Your task to perform on an android device: change your default location settings in chrome Image 0: 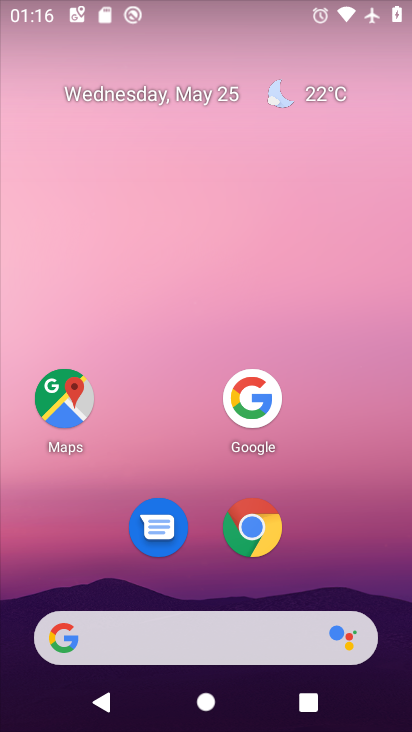
Step 0: press home button
Your task to perform on an android device: change your default location settings in chrome Image 1: 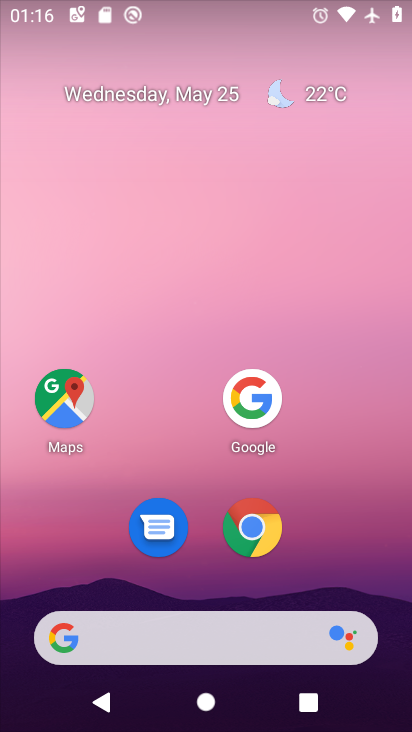
Step 1: click (249, 539)
Your task to perform on an android device: change your default location settings in chrome Image 2: 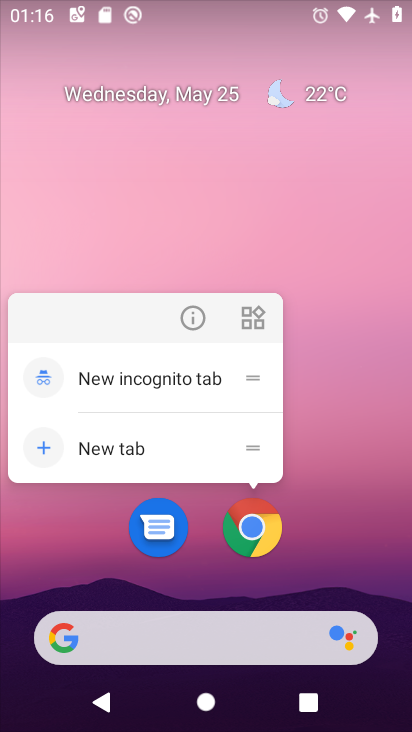
Step 2: click (260, 544)
Your task to perform on an android device: change your default location settings in chrome Image 3: 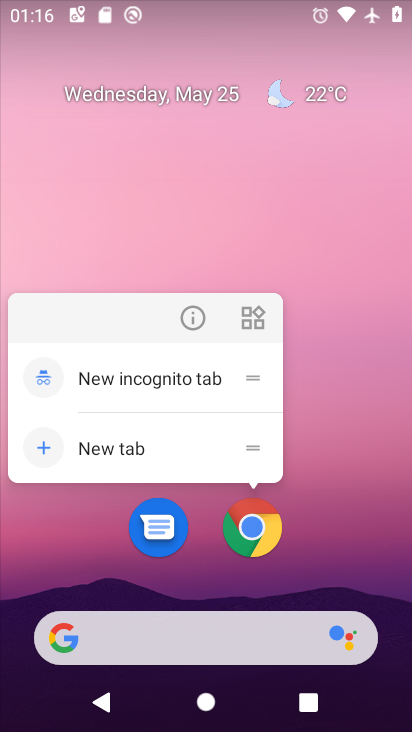
Step 3: click (233, 524)
Your task to perform on an android device: change your default location settings in chrome Image 4: 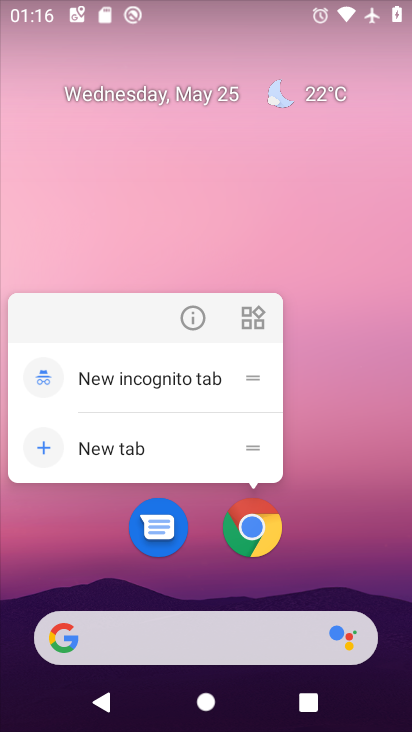
Step 4: click (245, 529)
Your task to perform on an android device: change your default location settings in chrome Image 5: 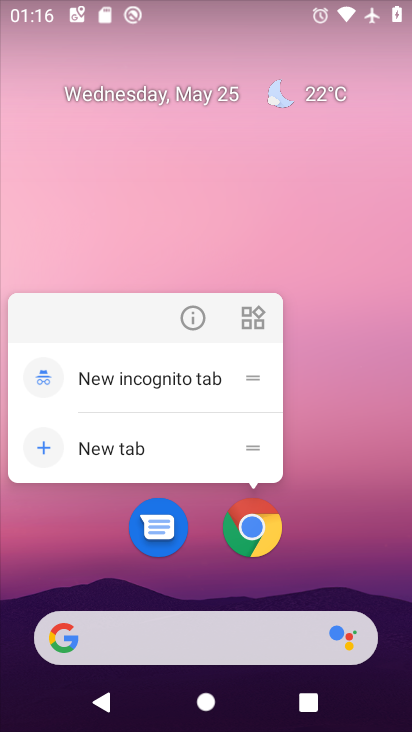
Step 5: click (263, 531)
Your task to perform on an android device: change your default location settings in chrome Image 6: 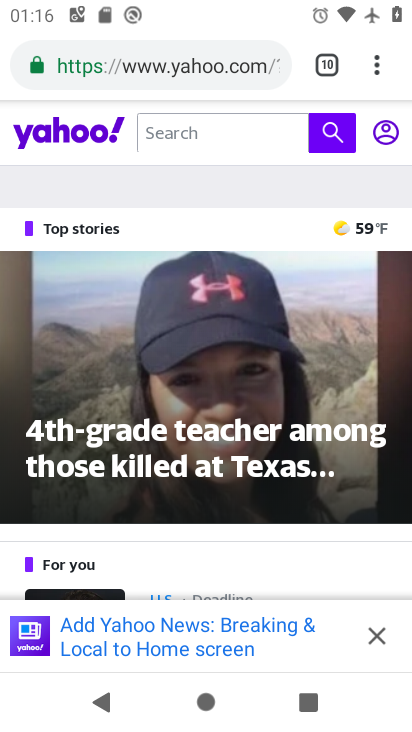
Step 6: drag from (374, 70) to (214, 571)
Your task to perform on an android device: change your default location settings in chrome Image 7: 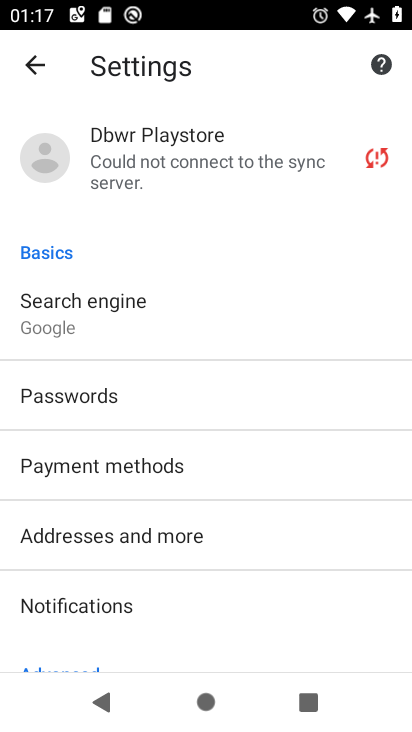
Step 7: drag from (222, 554) to (379, 159)
Your task to perform on an android device: change your default location settings in chrome Image 8: 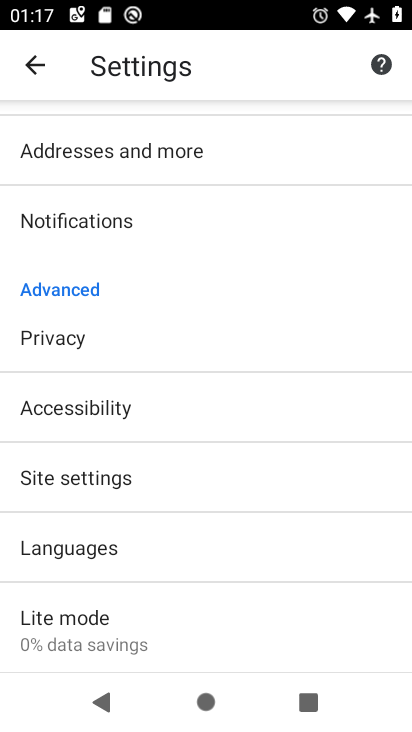
Step 8: click (127, 478)
Your task to perform on an android device: change your default location settings in chrome Image 9: 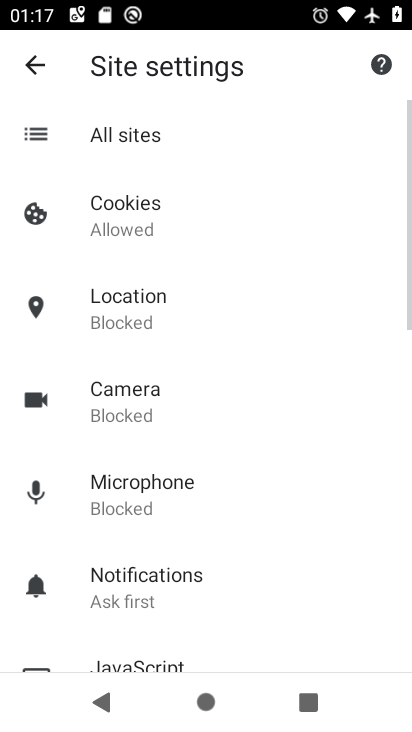
Step 9: click (153, 313)
Your task to perform on an android device: change your default location settings in chrome Image 10: 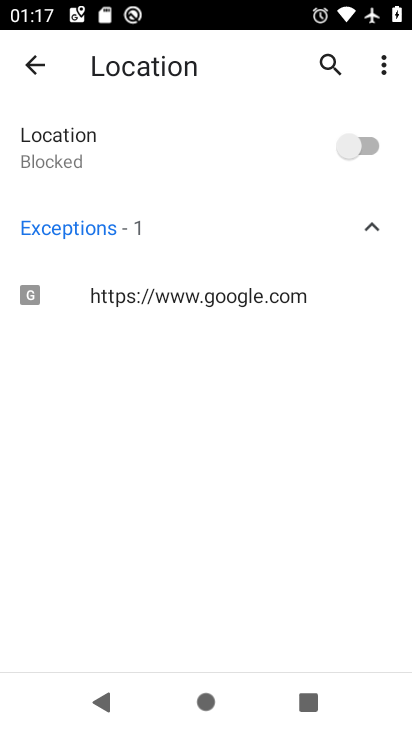
Step 10: click (370, 140)
Your task to perform on an android device: change your default location settings in chrome Image 11: 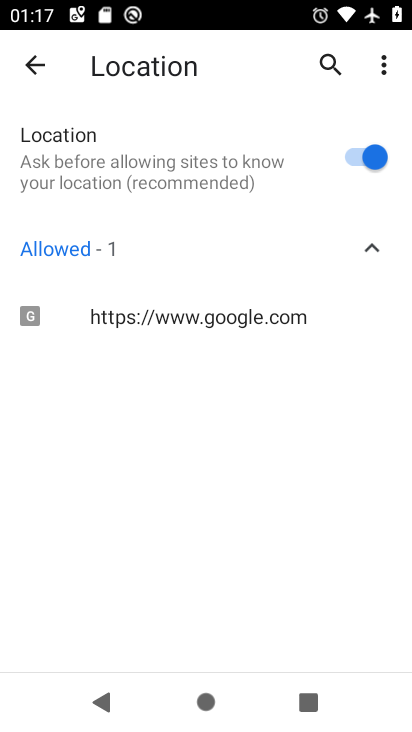
Step 11: task complete